Your task to perform on an android device: clear all cookies in the chrome app Image 0: 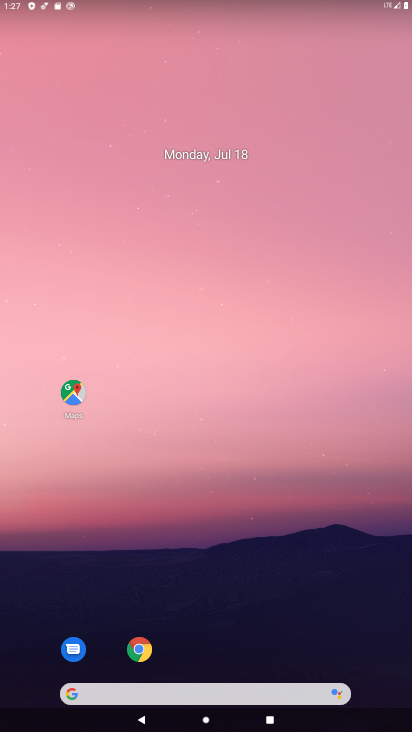
Step 0: click (144, 650)
Your task to perform on an android device: clear all cookies in the chrome app Image 1: 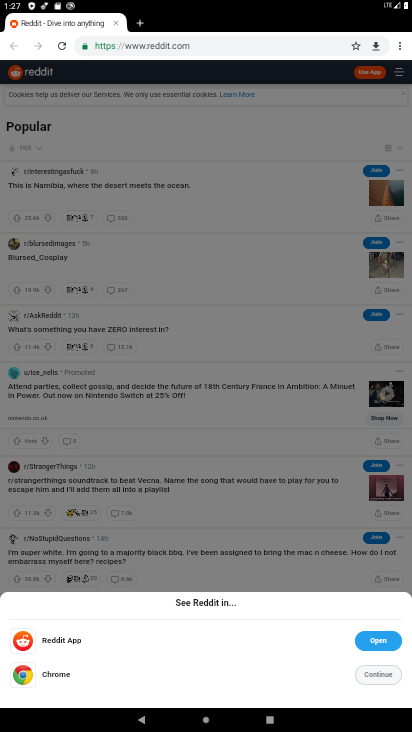
Step 1: click (399, 44)
Your task to perform on an android device: clear all cookies in the chrome app Image 2: 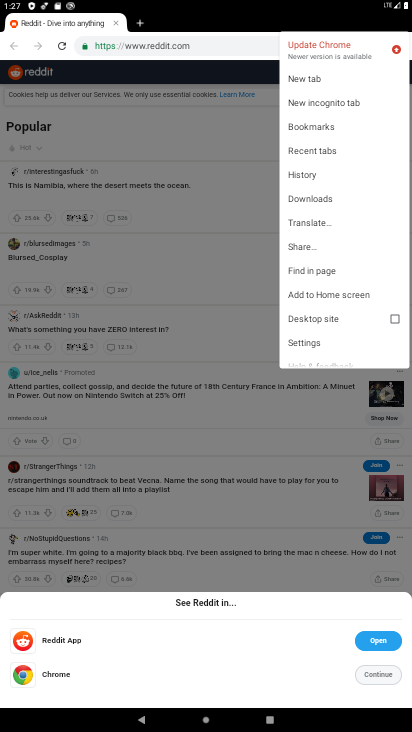
Step 2: click (305, 176)
Your task to perform on an android device: clear all cookies in the chrome app Image 3: 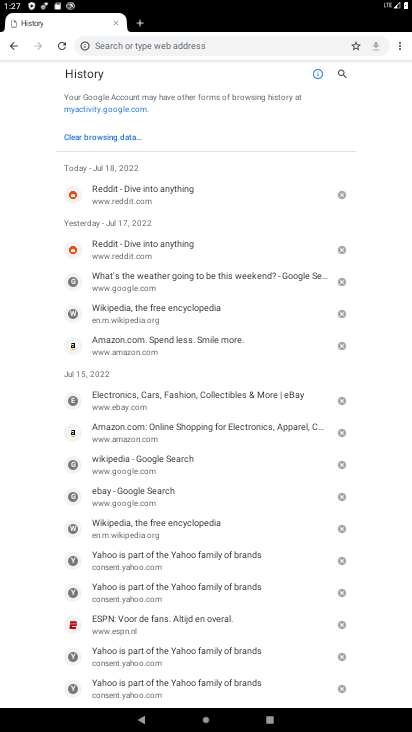
Step 3: click (100, 135)
Your task to perform on an android device: clear all cookies in the chrome app Image 4: 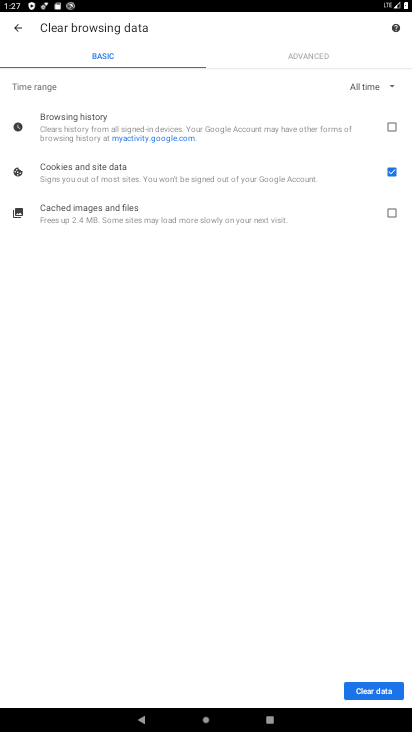
Step 4: click (379, 692)
Your task to perform on an android device: clear all cookies in the chrome app Image 5: 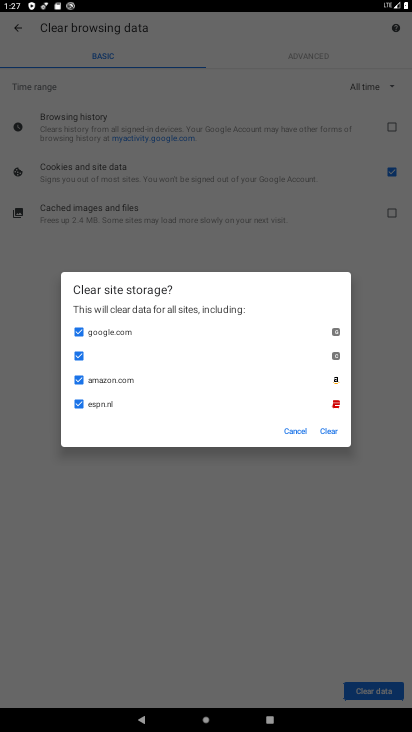
Step 5: click (332, 426)
Your task to perform on an android device: clear all cookies in the chrome app Image 6: 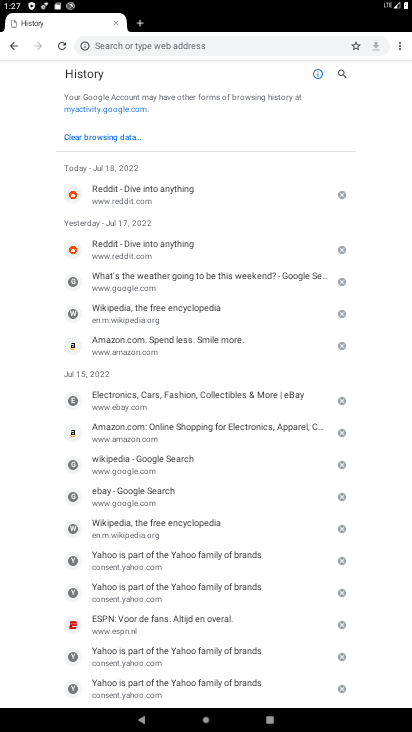
Step 6: click (125, 136)
Your task to perform on an android device: clear all cookies in the chrome app Image 7: 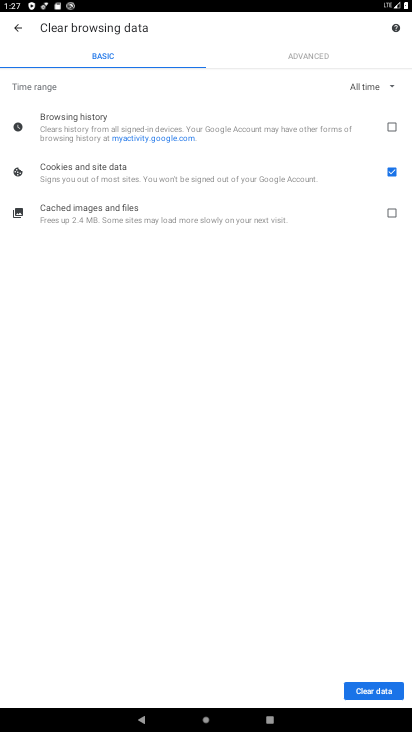
Step 7: click (373, 697)
Your task to perform on an android device: clear all cookies in the chrome app Image 8: 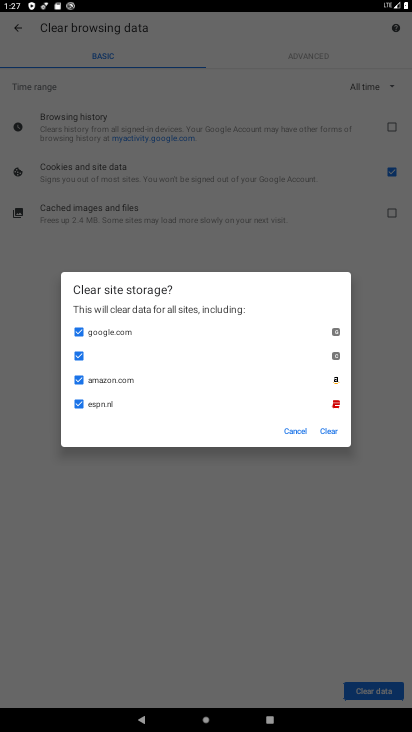
Step 8: click (327, 433)
Your task to perform on an android device: clear all cookies in the chrome app Image 9: 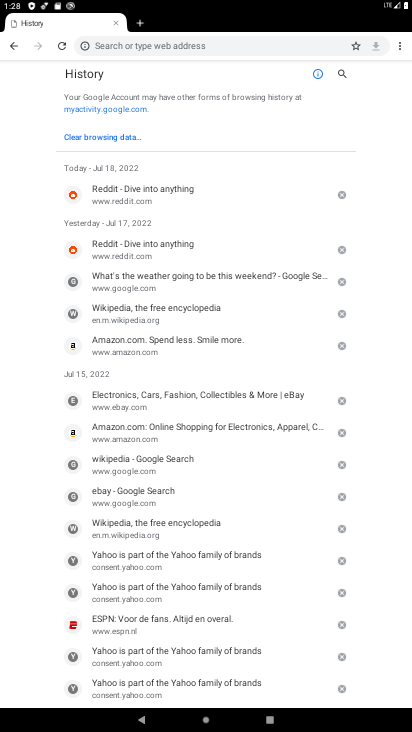
Step 9: task complete